Your task to perform on an android device: turn on wifi Image 0: 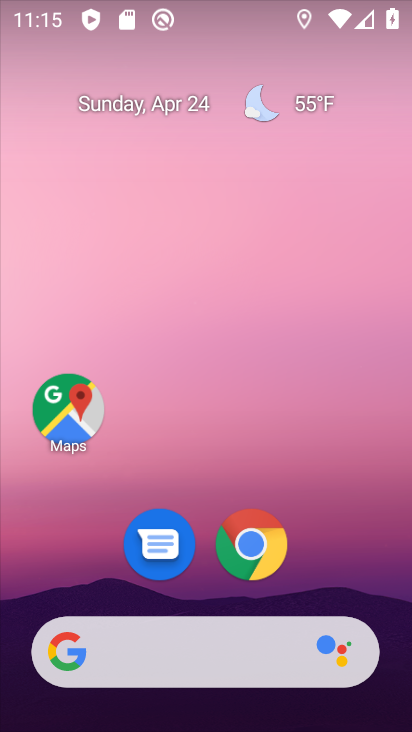
Step 0: drag from (302, 461) to (216, 135)
Your task to perform on an android device: turn on wifi Image 1: 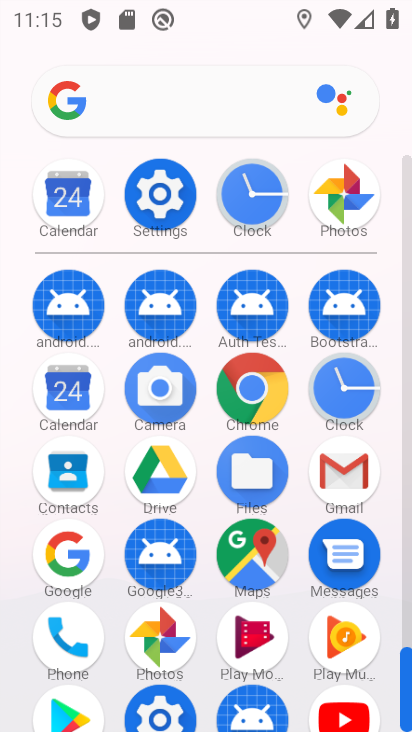
Step 1: click (159, 199)
Your task to perform on an android device: turn on wifi Image 2: 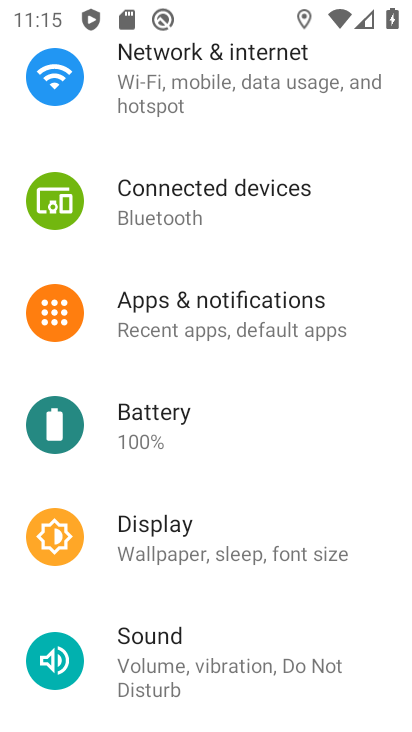
Step 2: click (180, 86)
Your task to perform on an android device: turn on wifi Image 3: 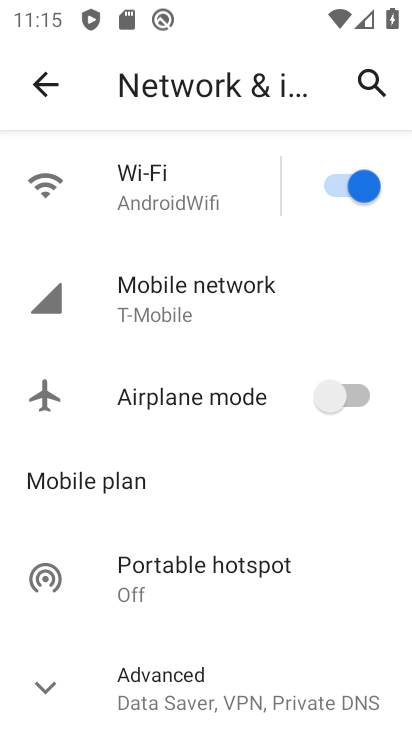
Step 3: task complete